Your task to perform on an android device: change keyboard looks Image 0: 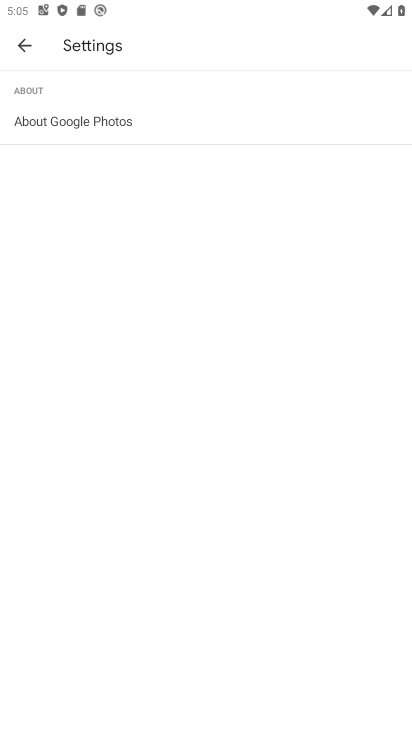
Step 0: press home button
Your task to perform on an android device: change keyboard looks Image 1: 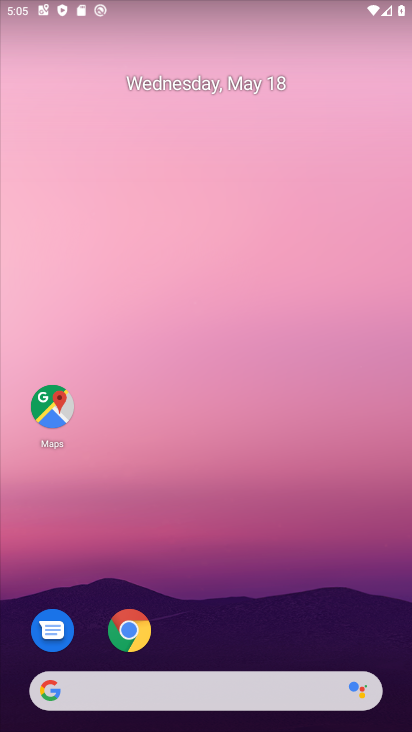
Step 1: drag from (137, 667) to (163, 260)
Your task to perform on an android device: change keyboard looks Image 2: 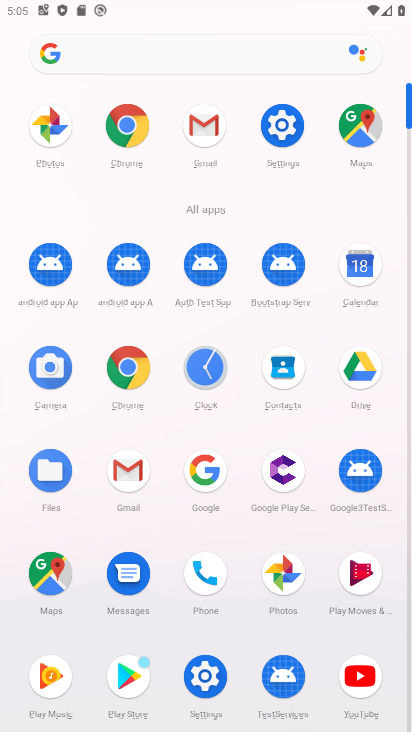
Step 2: click (281, 129)
Your task to perform on an android device: change keyboard looks Image 3: 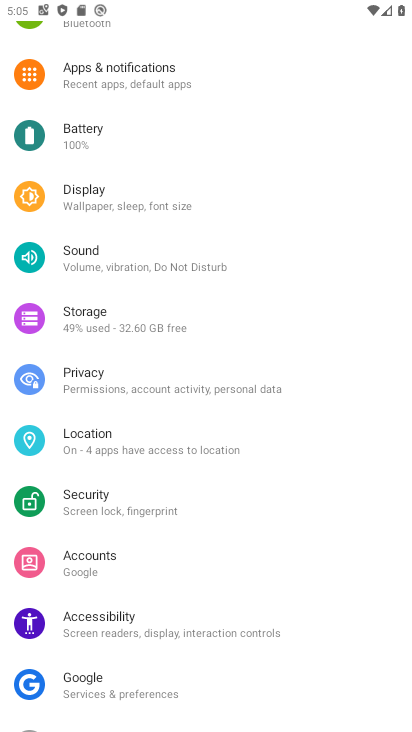
Step 3: drag from (135, 657) to (166, 213)
Your task to perform on an android device: change keyboard looks Image 4: 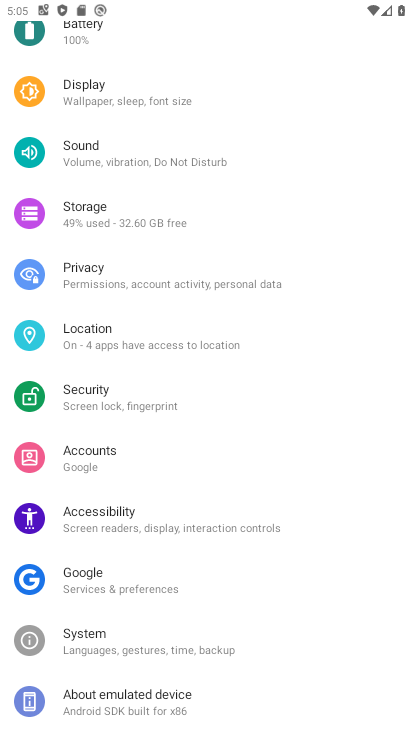
Step 4: click (91, 640)
Your task to perform on an android device: change keyboard looks Image 5: 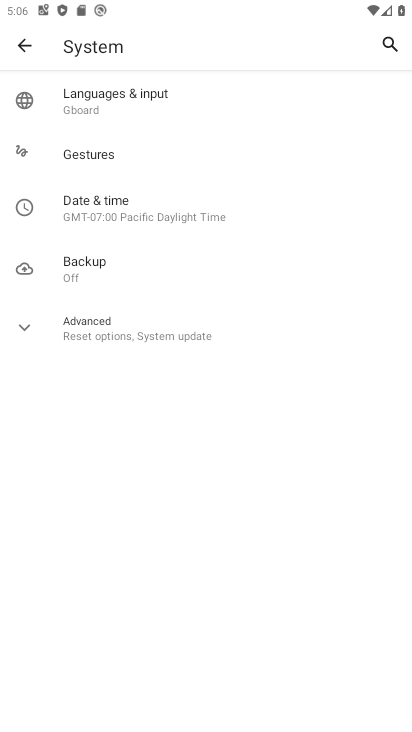
Step 5: click (83, 97)
Your task to perform on an android device: change keyboard looks Image 6: 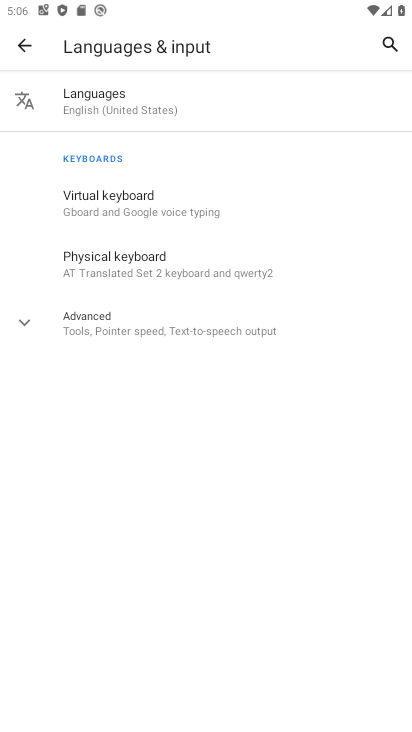
Step 6: click (118, 199)
Your task to perform on an android device: change keyboard looks Image 7: 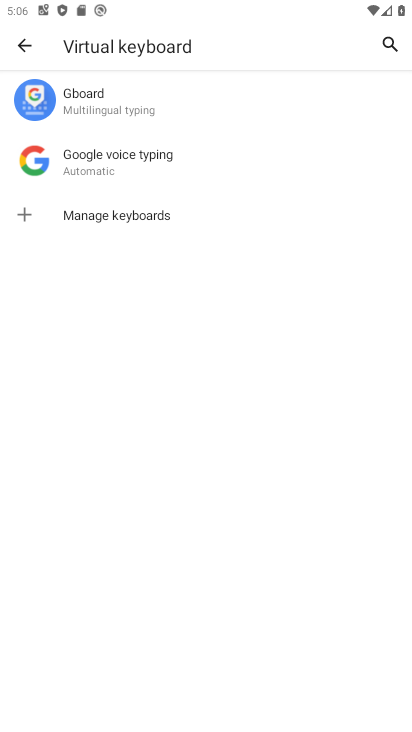
Step 7: click (85, 95)
Your task to perform on an android device: change keyboard looks Image 8: 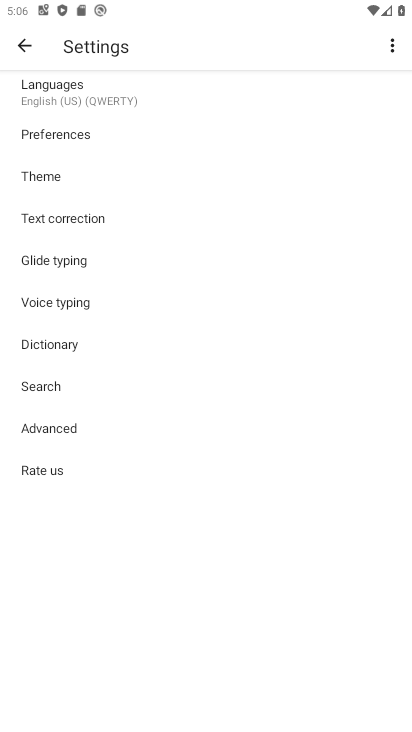
Step 8: click (49, 170)
Your task to perform on an android device: change keyboard looks Image 9: 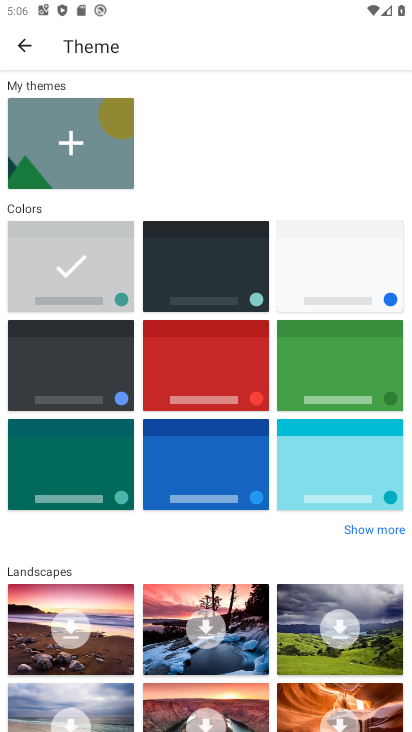
Step 9: task complete